Your task to perform on an android device: Open Google Chrome Image 0: 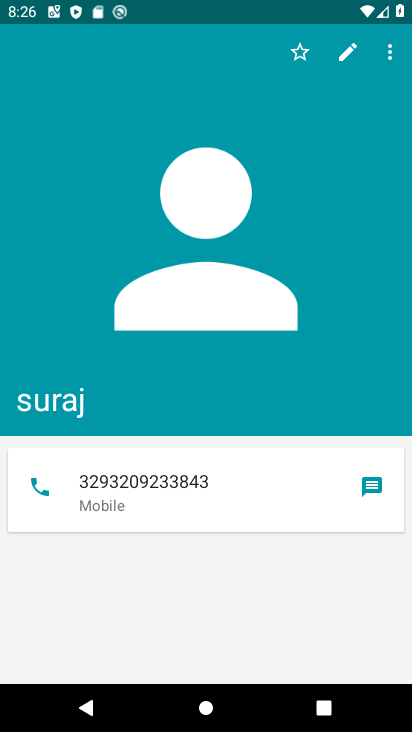
Step 0: press home button
Your task to perform on an android device: Open Google Chrome Image 1: 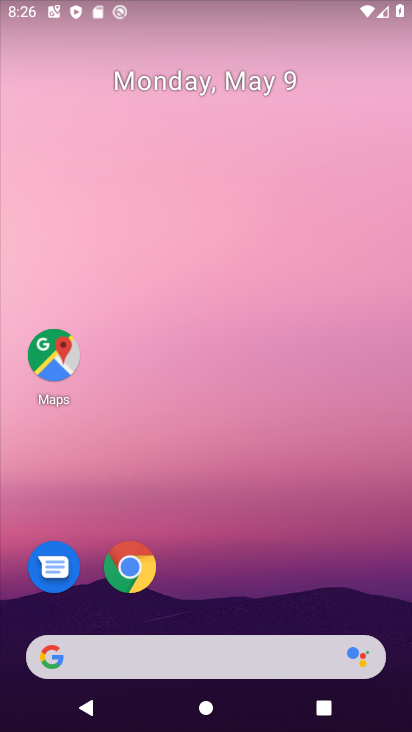
Step 1: drag from (362, 580) to (324, 185)
Your task to perform on an android device: Open Google Chrome Image 2: 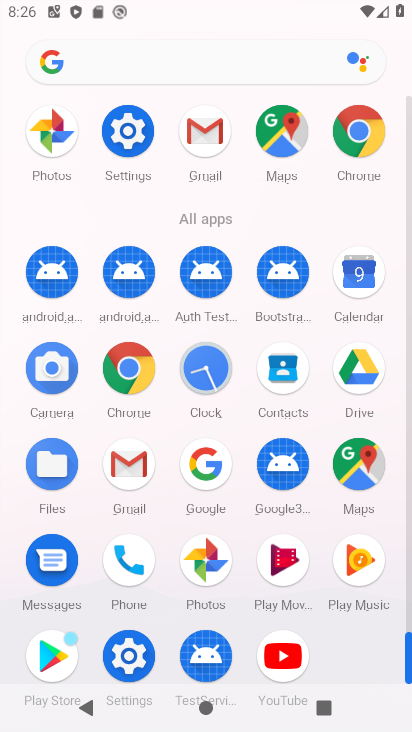
Step 2: click (134, 381)
Your task to perform on an android device: Open Google Chrome Image 3: 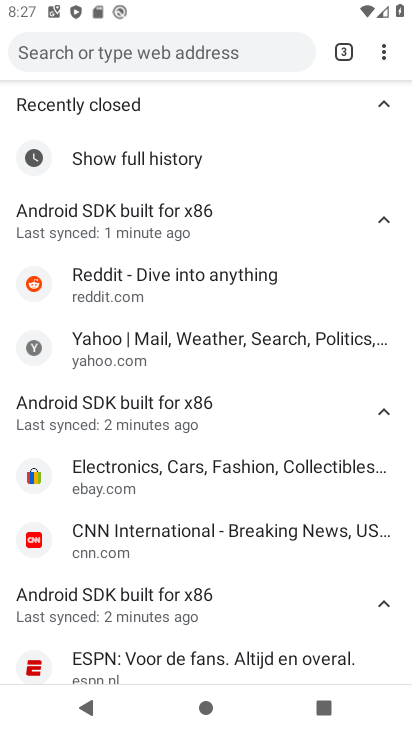
Step 3: task complete